Your task to perform on an android device: Open my contact list Image 0: 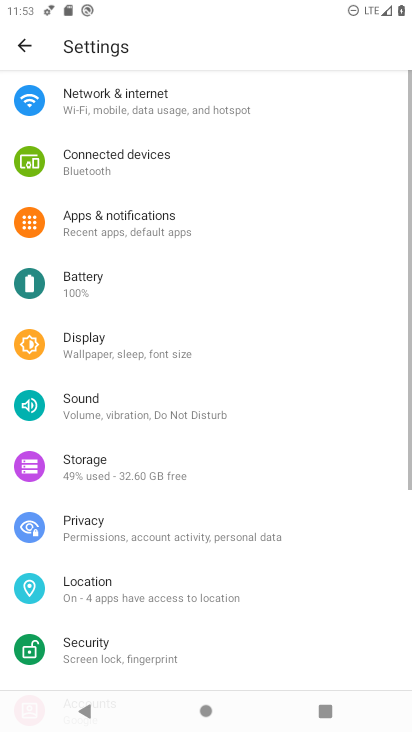
Step 0: press home button
Your task to perform on an android device: Open my contact list Image 1: 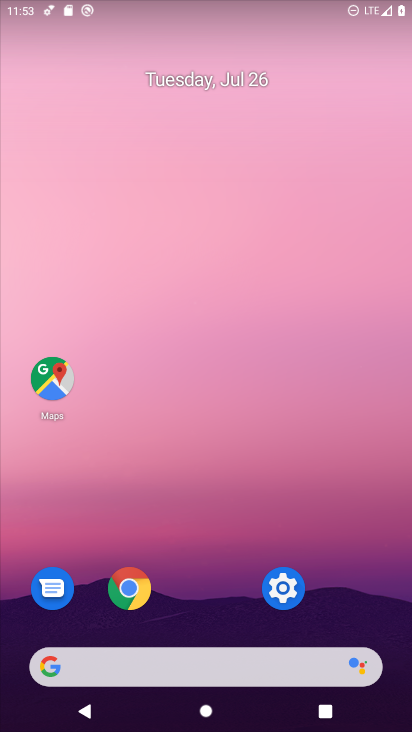
Step 1: drag from (217, 691) to (323, 229)
Your task to perform on an android device: Open my contact list Image 2: 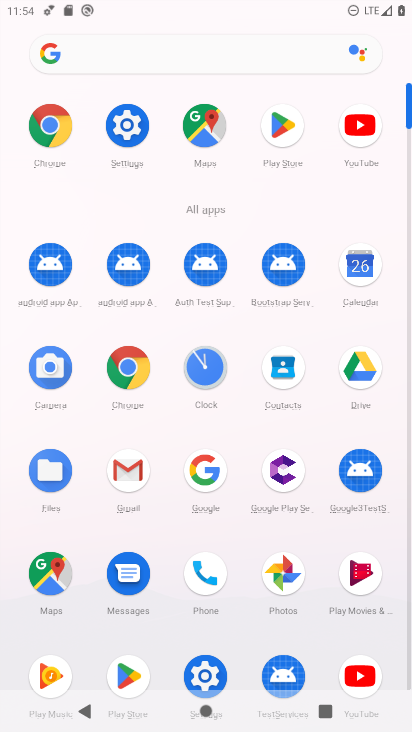
Step 2: click (211, 582)
Your task to perform on an android device: Open my contact list Image 3: 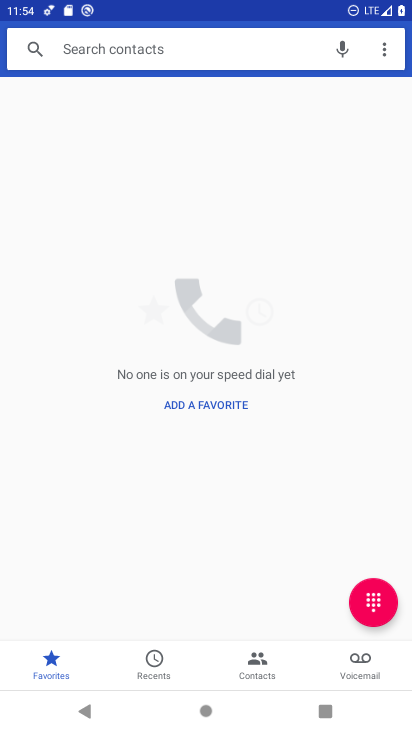
Step 3: click (236, 666)
Your task to perform on an android device: Open my contact list Image 4: 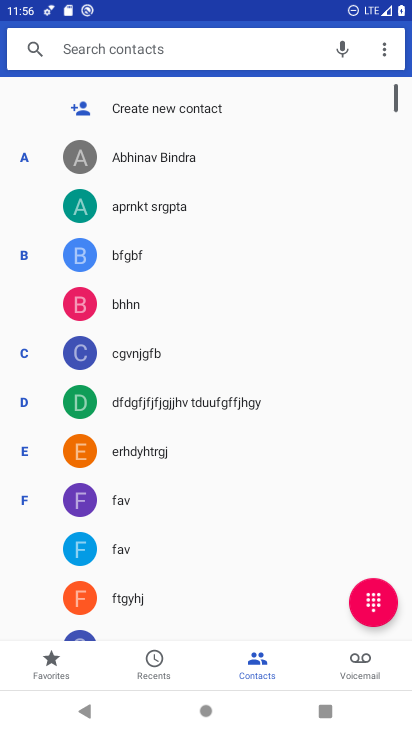
Step 4: task complete